Your task to perform on an android device: Set the phone to "Do not disturb". Image 0: 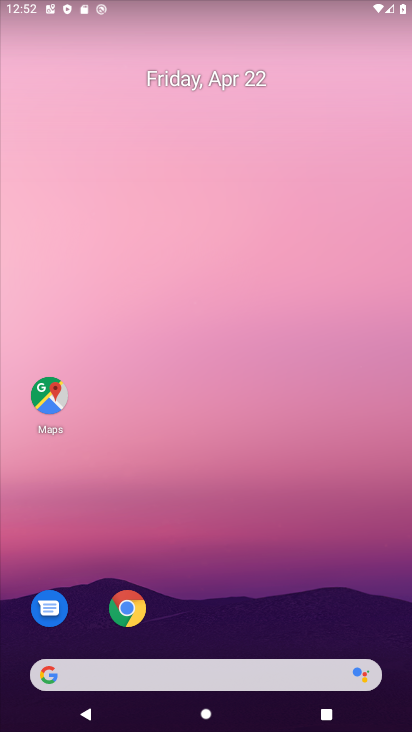
Step 0: drag from (360, 597) to (269, 103)
Your task to perform on an android device: Set the phone to "Do not disturb". Image 1: 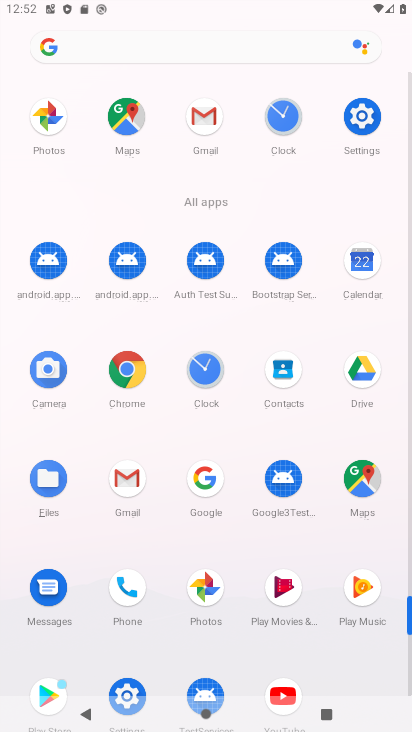
Step 1: click (409, 673)
Your task to perform on an android device: Set the phone to "Do not disturb". Image 2: 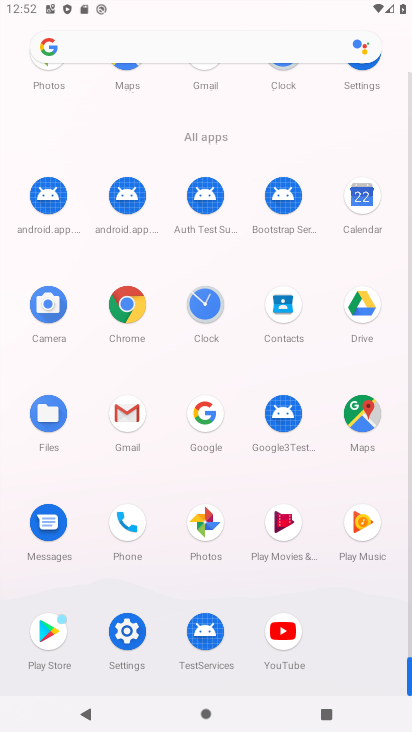
Step 2: click (120, 637)
Your task to perform on an android device: Set the phone to "Do not disturb". Image 3: 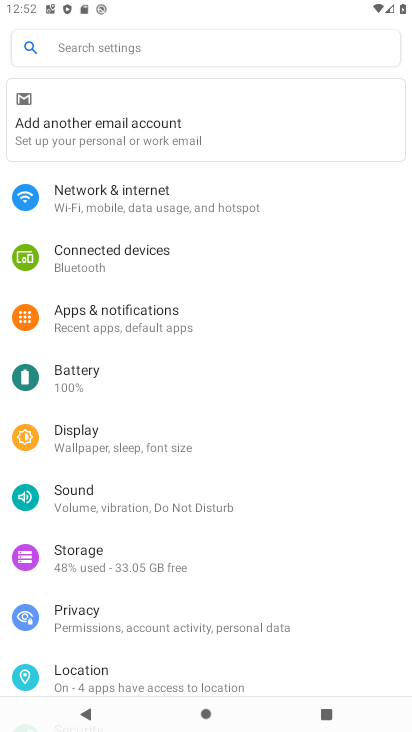
Step 3: click (128, 503)
Your task to perform on an android device: Set the phone to "Do not disturb". Image 4: 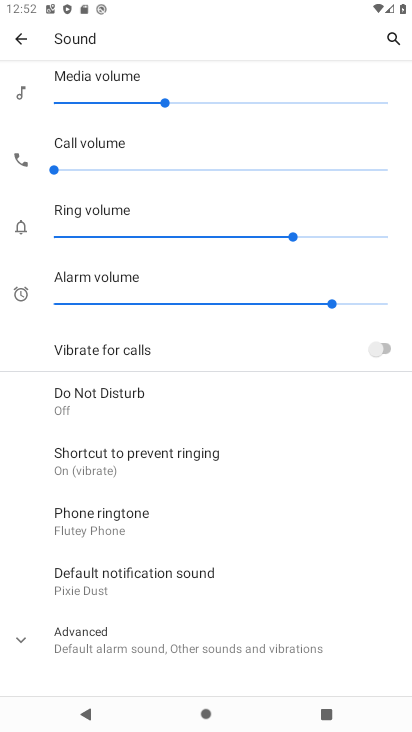
Step 4: click (79, 400)
Your task to perform on an android device: Set the phone to "Do not disturb". Image 5: 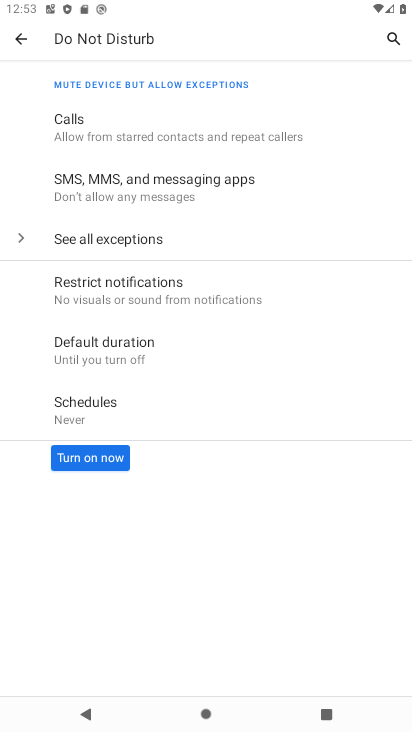
Step 5: click (95, 454)
Your task to perform on an android device: Set the phone to "Do not disturb". Image 6: 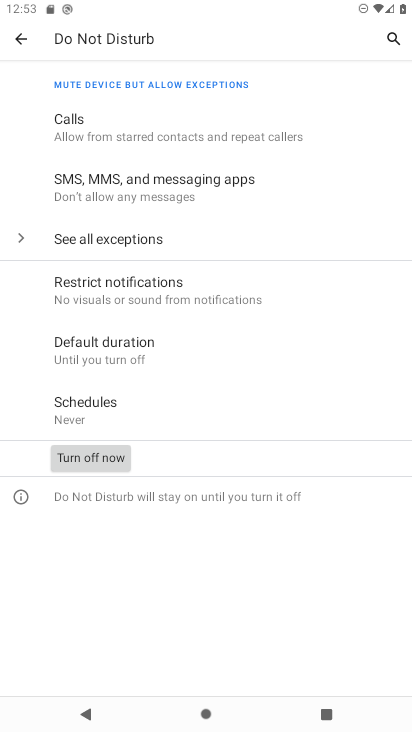
Step 6: task complete